Your task to perform on an android device: install app "Adobe Acrobat Reader: Edit PDF" Image 0: 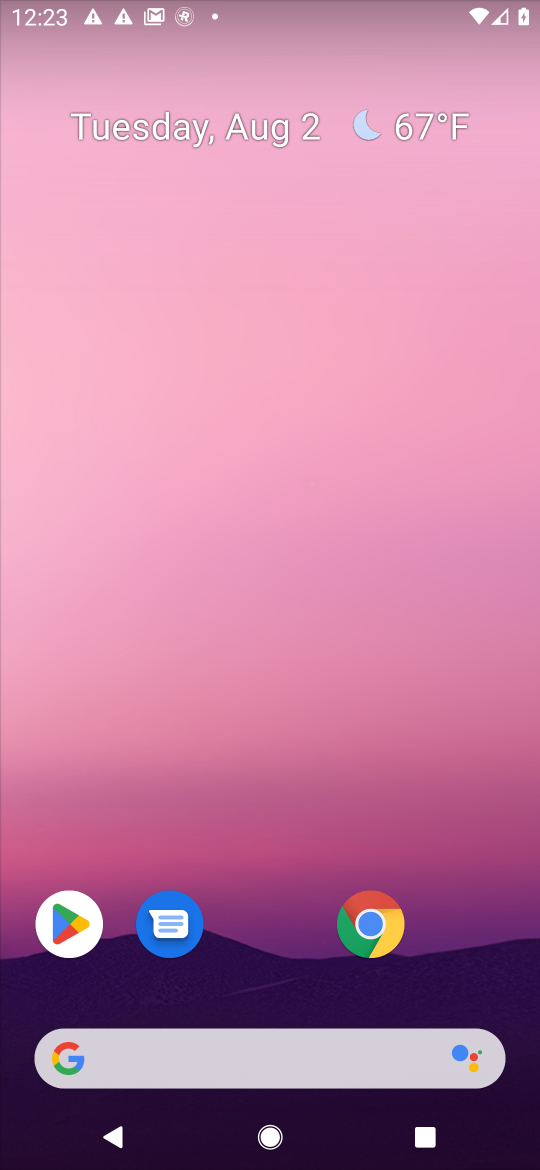
Step 0: click (65, 921)
Your task to perform on an android device: install app "Adobe Acrobat Reader: Edit PDF" Image 1: 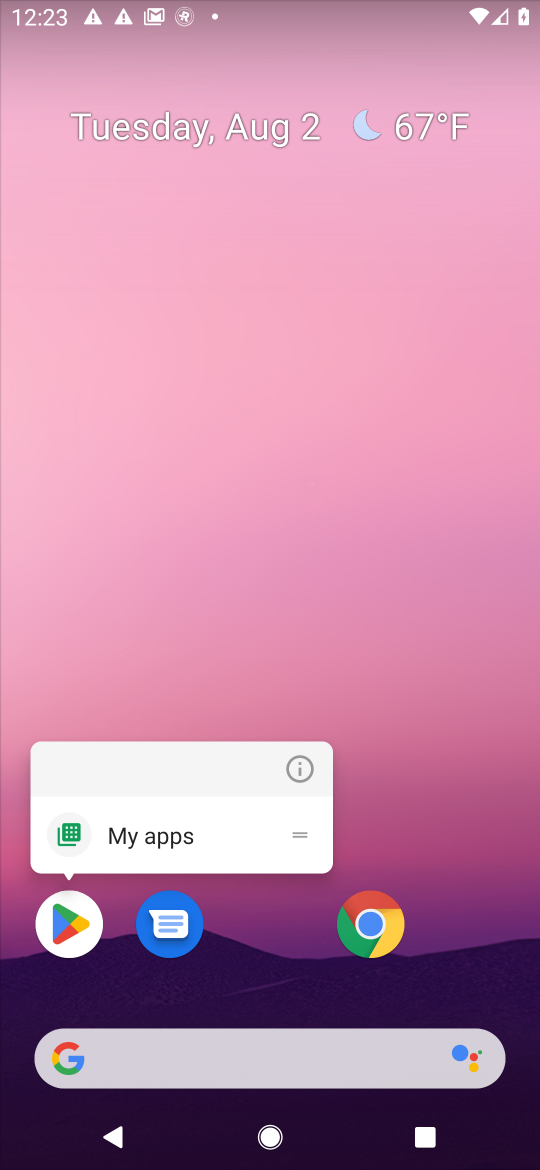
Step 1: click (65, 921)
Your task to perform on an android device: install app "Adobe Acrobat Reader: Edit PDF" Image 2: 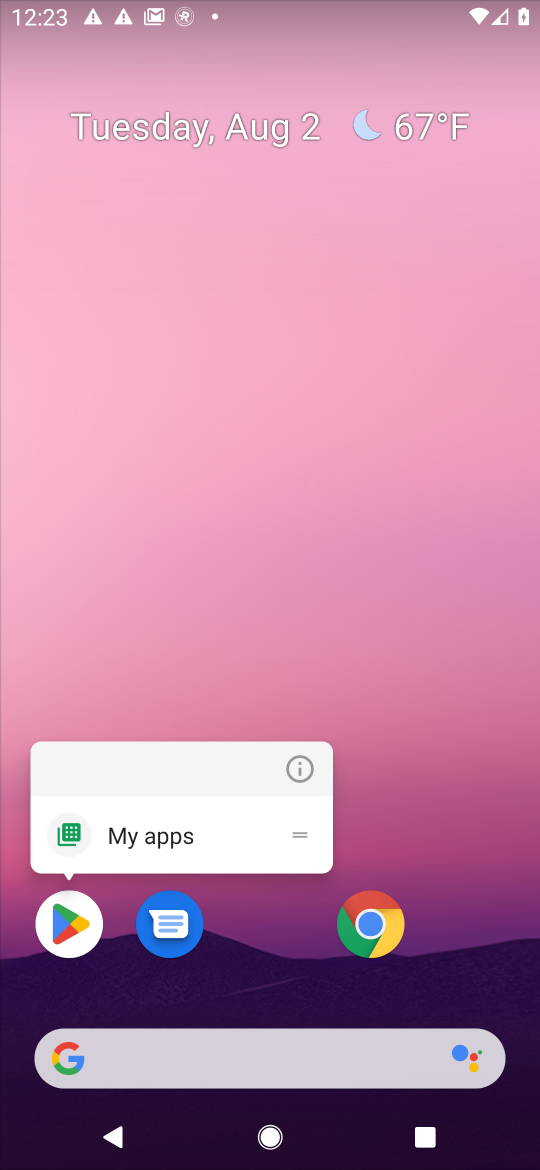
Step 2: click (62, 915)
Your task to perform on an android device: install app "Adobe Acrobat Reader: Edit PDF" Image 3: 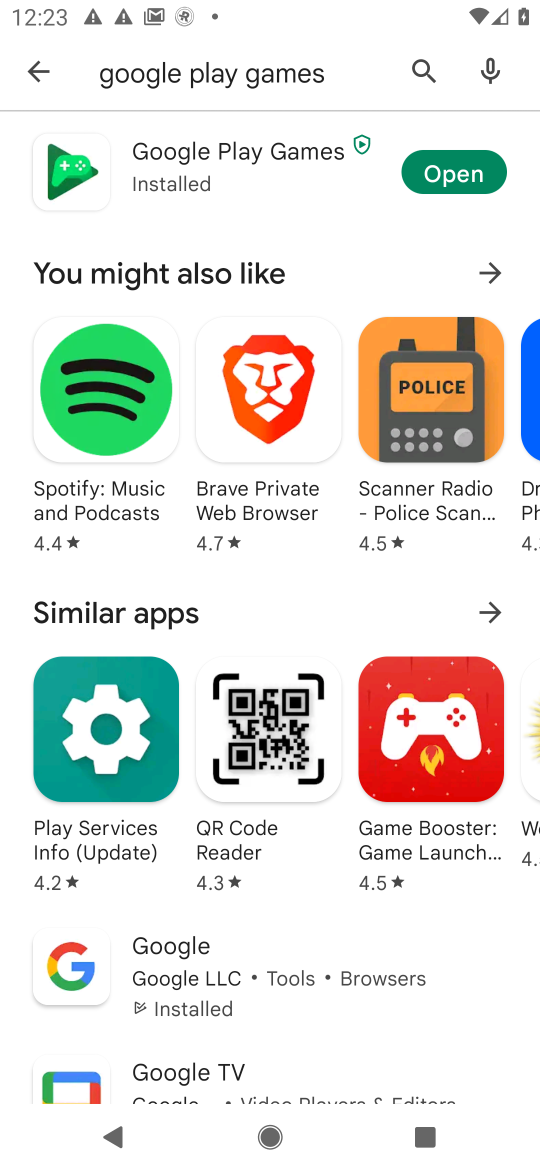
Step 3: click (426, 65)
Your task to perform on an android device: install app "Adobe Acrobat Reader: Edit PDF" Image 4: 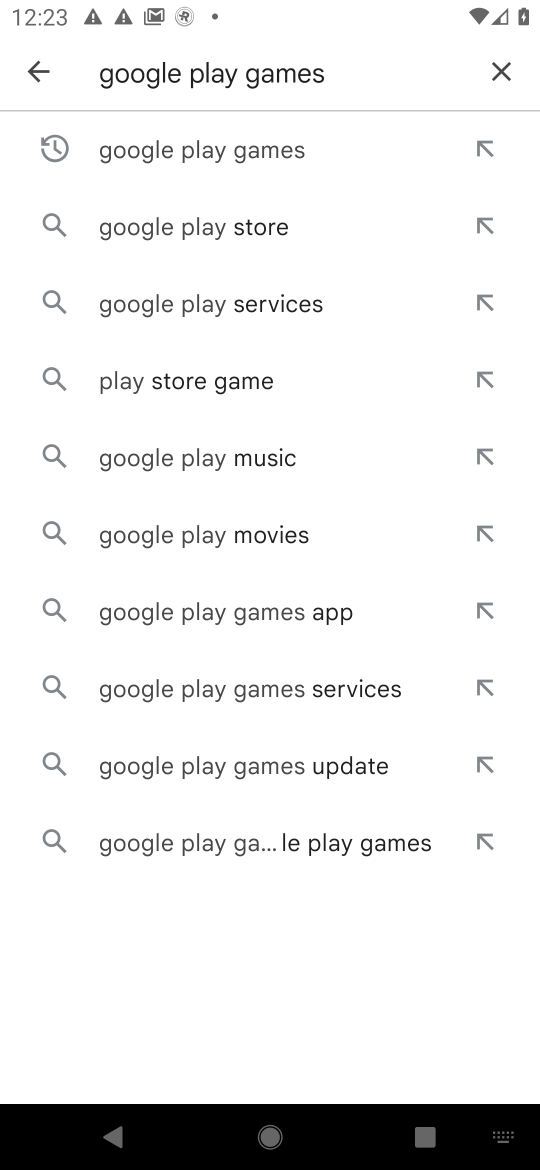
Step 4: click (502, 76)
Your task to perform on an android device: install app "Adobe Acrobat Reader: Edit PDF" Image 5: 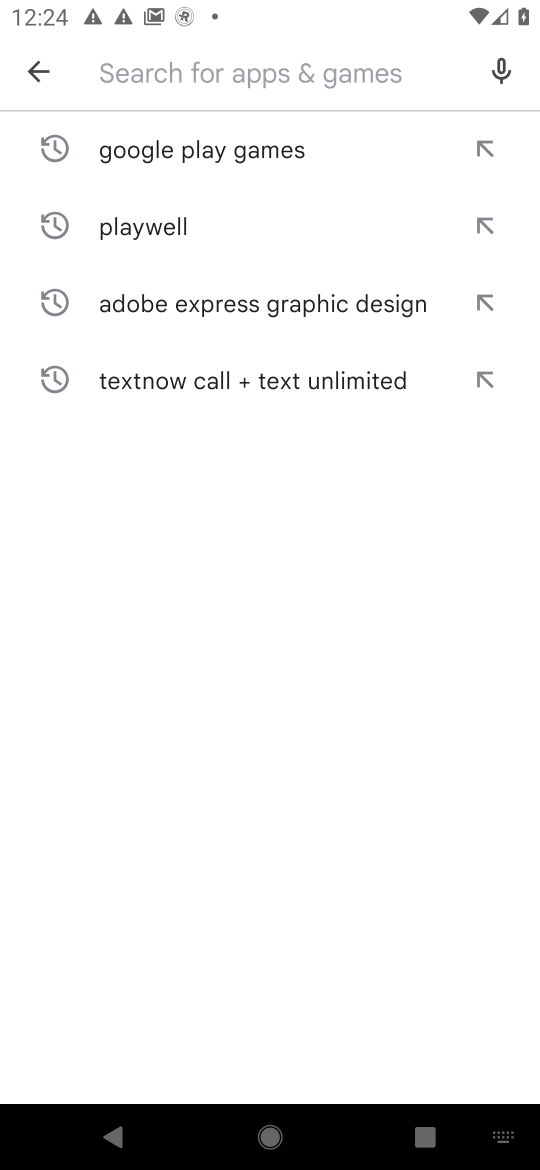
Step 5: type "Adobe Acrobat Reader: Edit PDF"
Your task to perform on an android device: install app "Adobe Acrobat Reader: Edit PDF" Image 6: 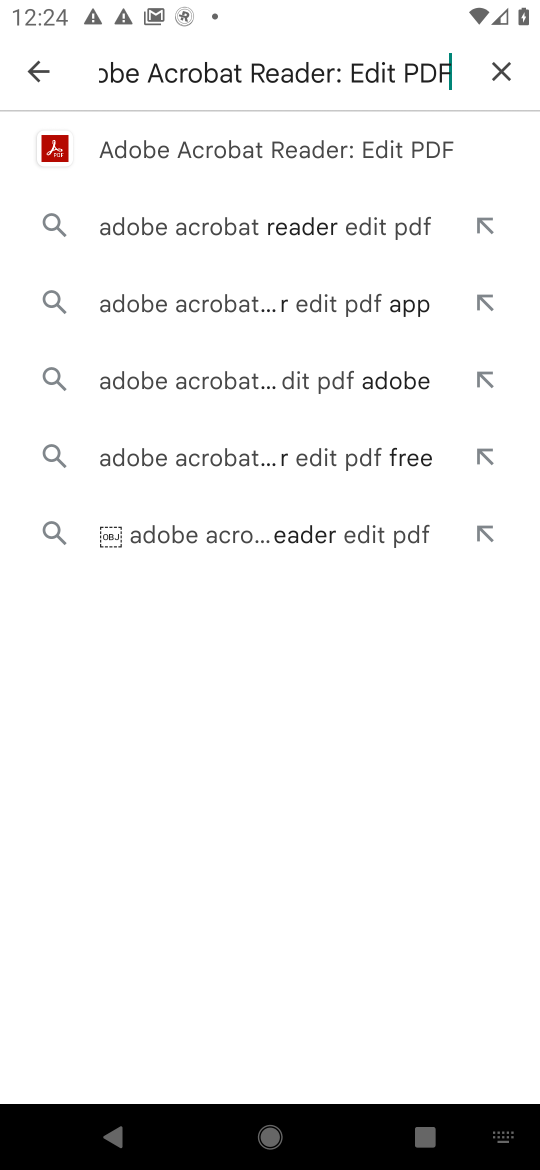
Step 6: click (158, 143)
Your task to perform on an android device: install app "Adobe Acrobat Reader: Edit PDF" Image 7: 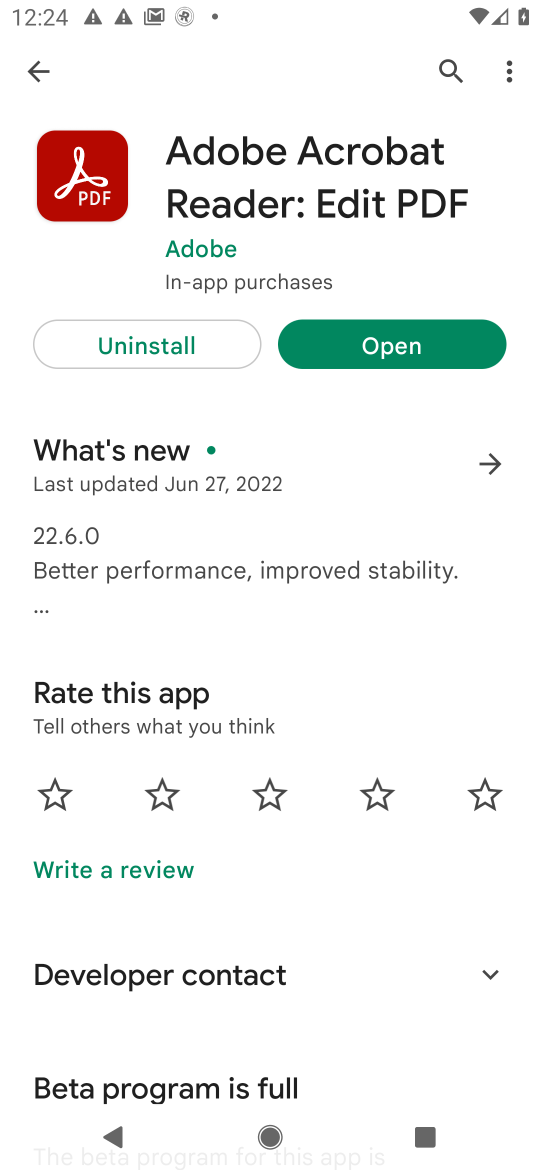
Step 7: click (385, 347)
Your task to perform on an android device: install app "Adobe Acrobat Reader: Edit PDF" Image 8: 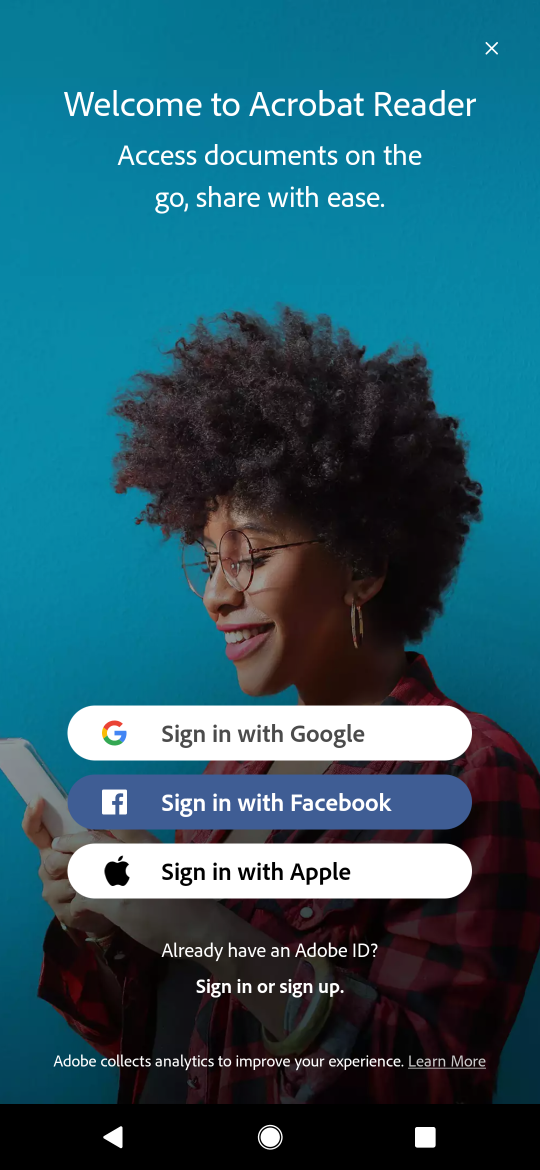
Step 8: task complete